Your task to perform on an android device: What is the recent news? Image 0: 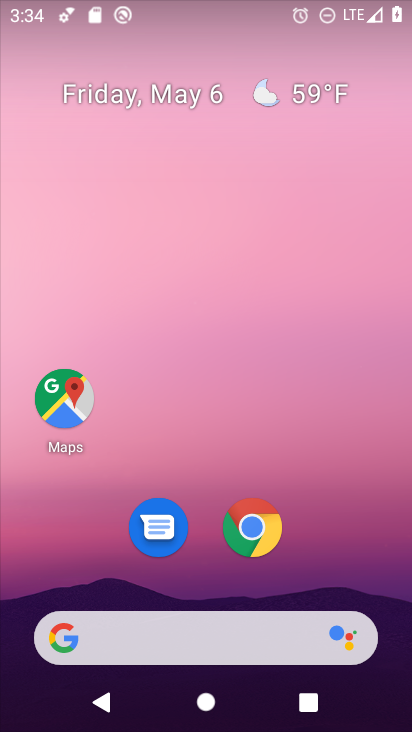
Step 0: drag from (341, 542) to (257, 112)
Your task to perform on an android device: What is the recent news? Image 1: 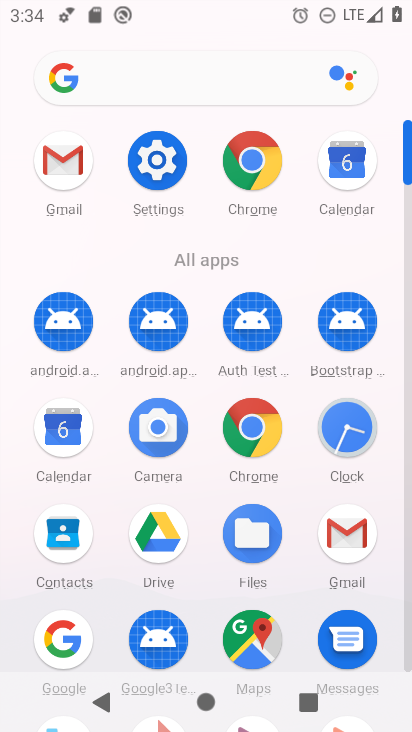
Step 1: click (254, 416)
Your task to perform on an android device: What is the recent news? Image 2: 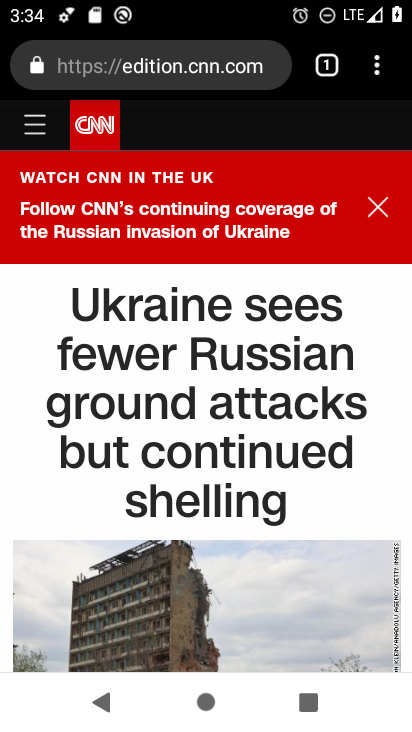
Step 2: click (201, 62)
Your task to perform on an android device: What is the recent news? Image 3: 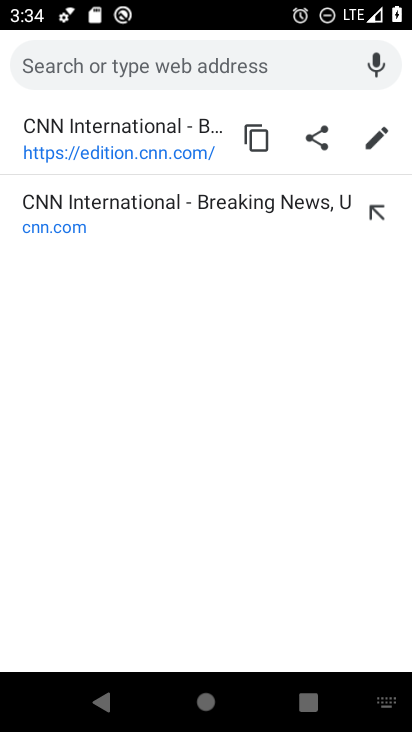
Step 3: type "news"
Your task to perform on an android device: What is the recent news? Image 4: 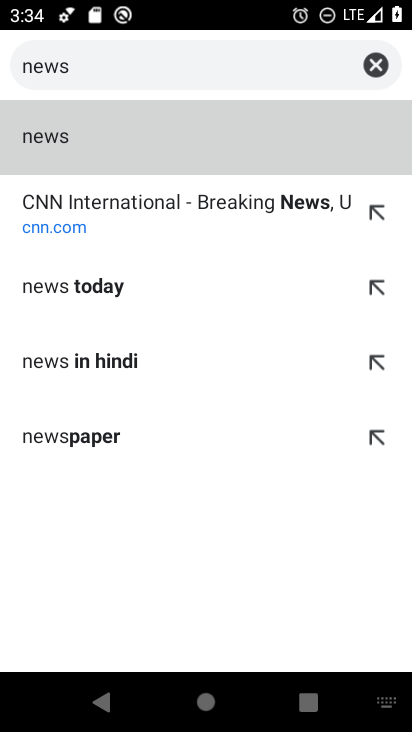
Step 4: click (93, 136)
Your task to perform on an android device: What is the recent news? Image 5: 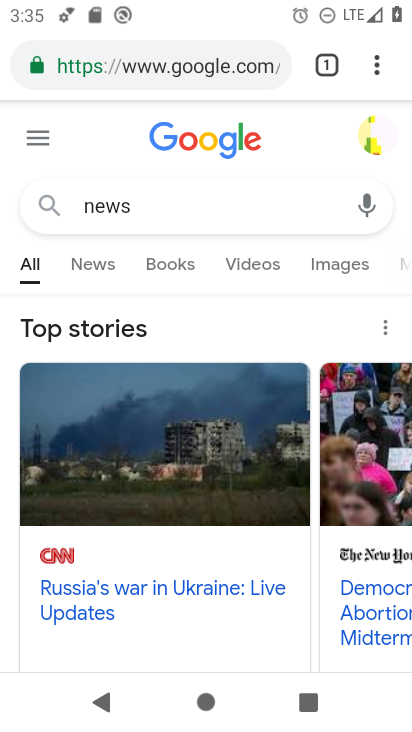
Step 5: click (103, 264)
Your task to perform on an android device: What is the recent news? Image 6: 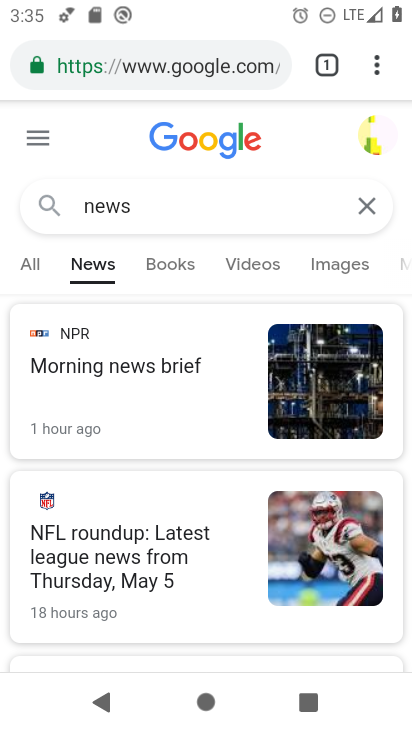
Step 6: task complete